Your task to perform on an android device: Open Android settings Image 0: 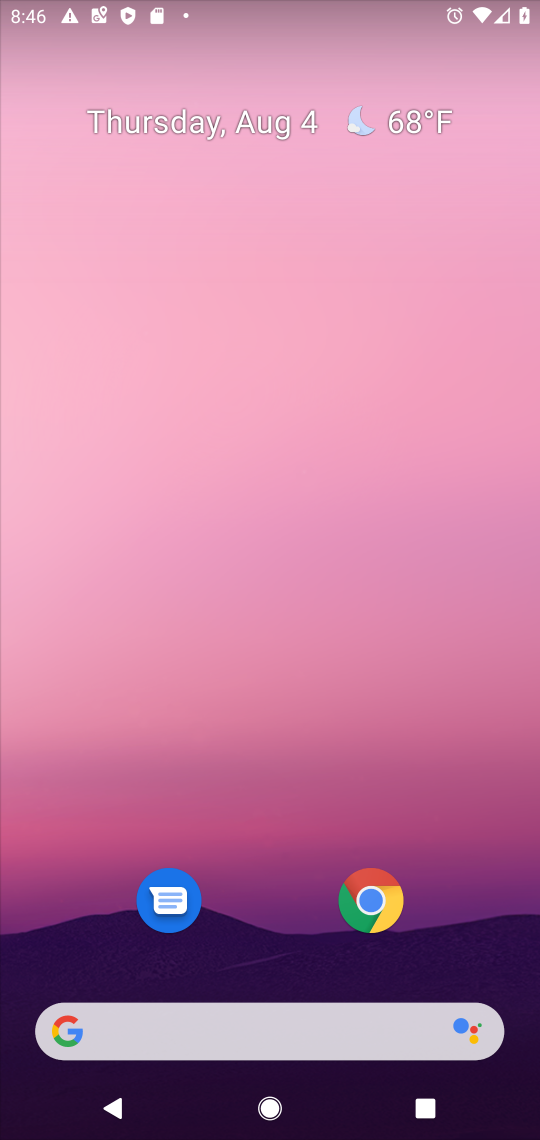
Step 0: drag from (217, 1043) to (365, 397)
Your task to perform on an android device: Open Android settings Image 1: 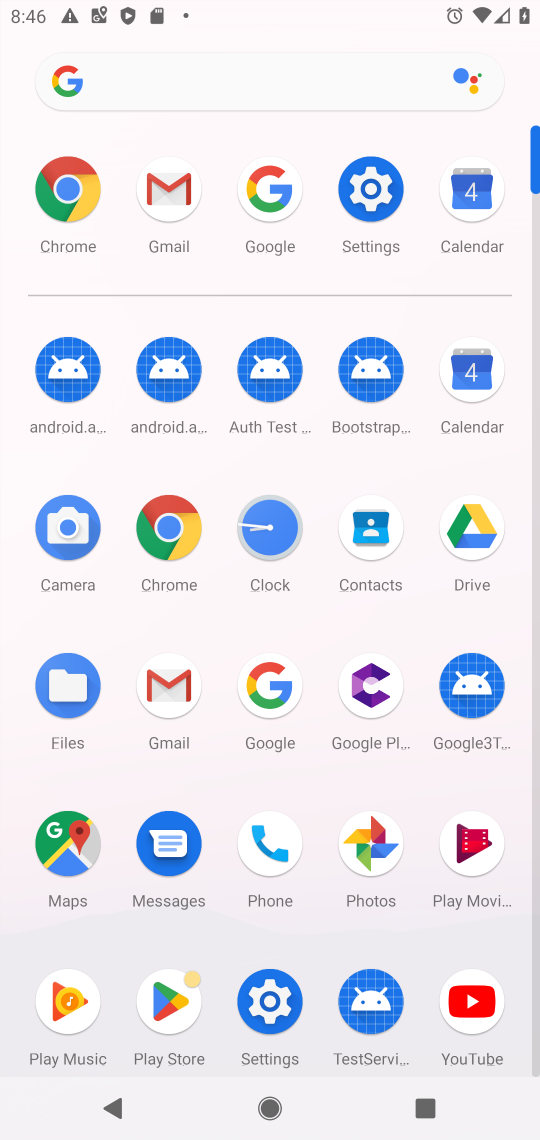
Step 1: click (271, 1006)
Your task to perform on an android device: Open Android settings Image 2: 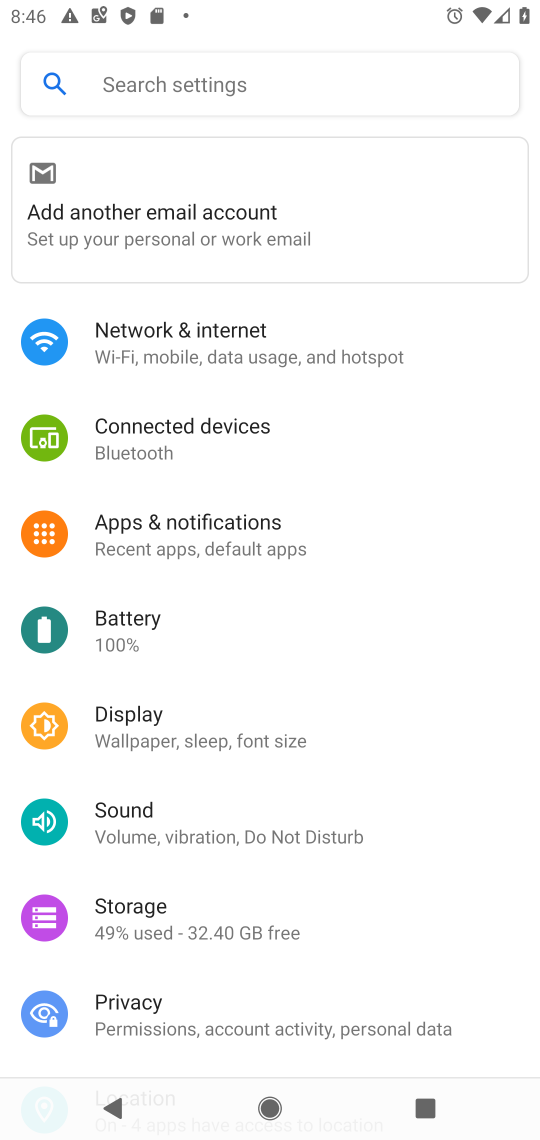
Step 2: task complete